Your task to perform on an android device: delete browsing data in the chrome app Image 0: 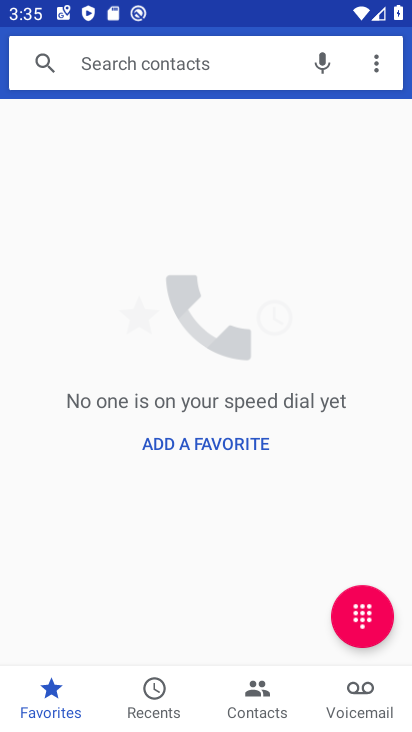
Step 0: press home button
Your task to perform on an android device: delete browsing data in the chrome app Image 1: 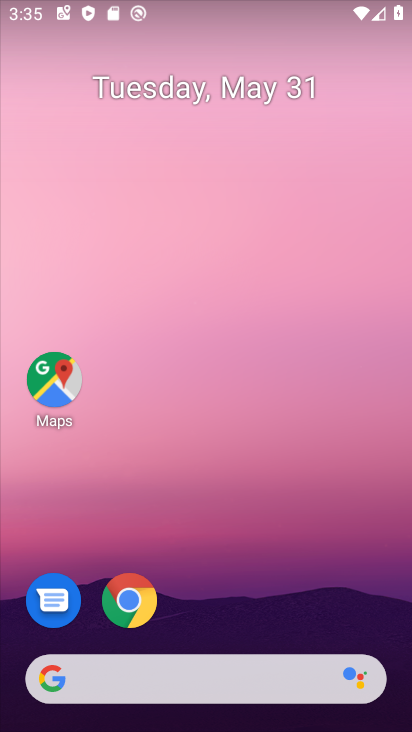
Step 1: click (130, 601)
Your task to perform on an android device: delete browsing data in the chrome app Image 2: 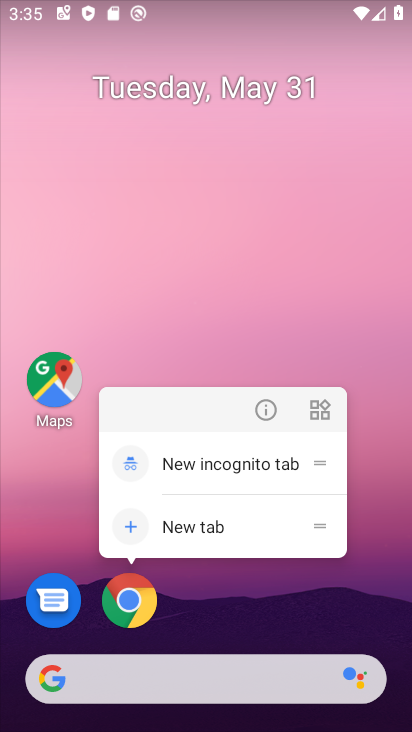
Step 2: click (121, 607)
Your task to perform on an android device: delete browsing data in the chrome app Image 3: 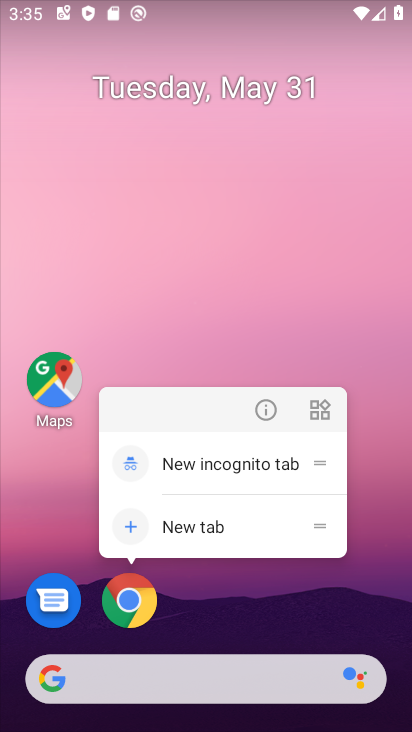
Step 3: click (125, 597)
Your task to perform on an android device: delete browsing data in the chrome app Image 4: 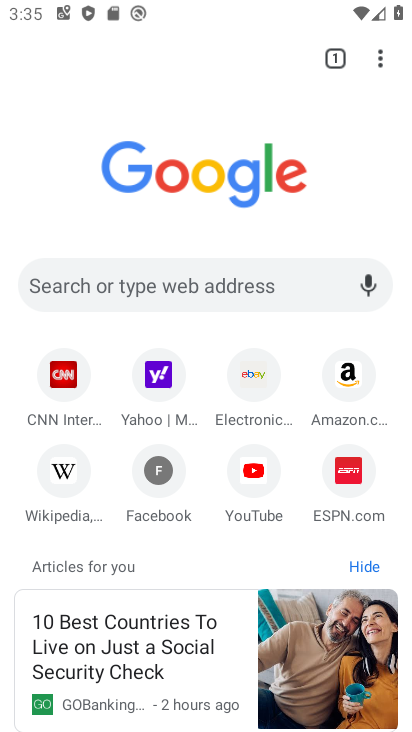
Step 4: click (385, 51)
Your task to perform on an android device: delete browsing data in the chrome app Image 5: 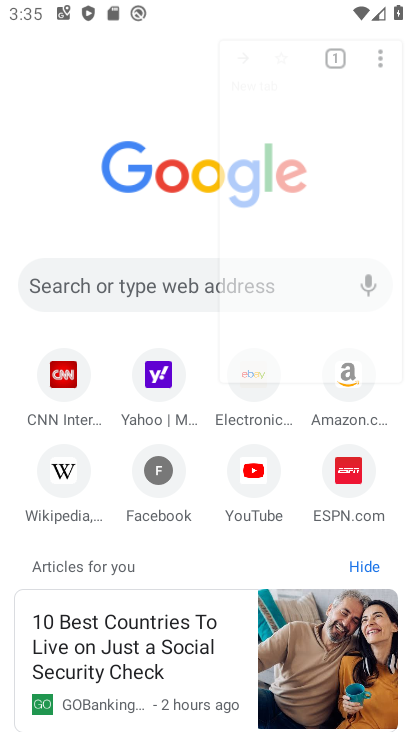
Step 5: click (385, 51)
Your task to perform on an android device: delete browsing data in the chrome app Image 6: 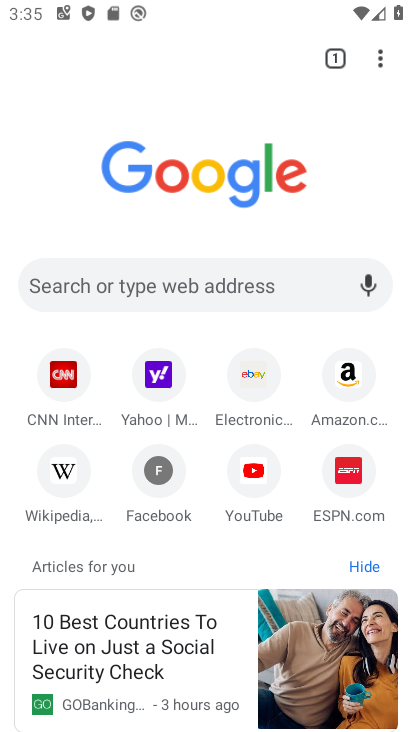
Step 6: click (375, 51)
Your task to perform on an android device: delete browsing data in the chrome app Image 7: 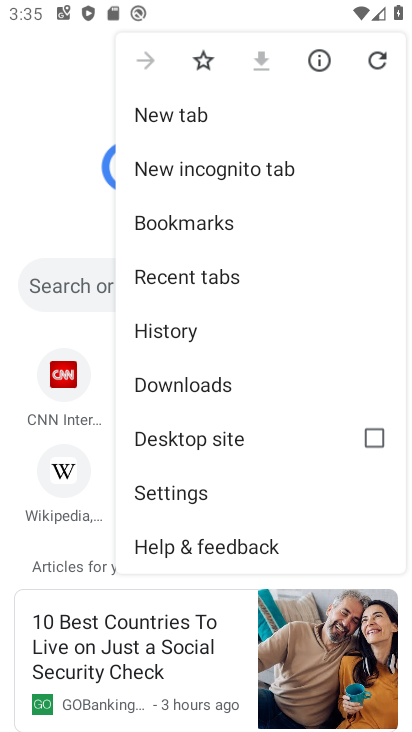
Step 7: click (210, 330)
Your task to perform on an android device: delete browsing data in the chrome app Image 8: 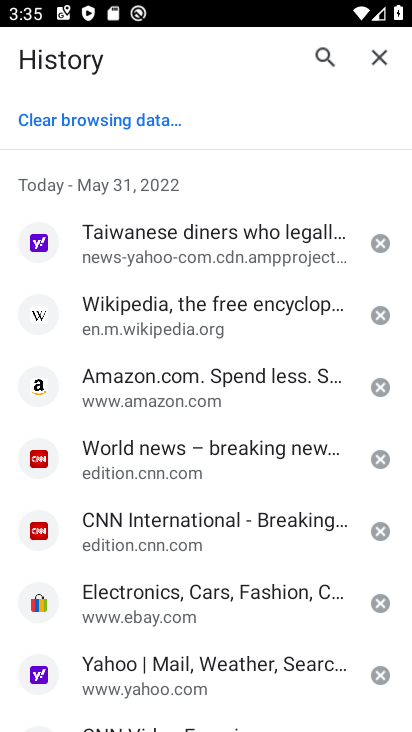
Step 8: click (105, 125)
Your task to perform on an android device: delete browsing data in the chrome app Image 9: 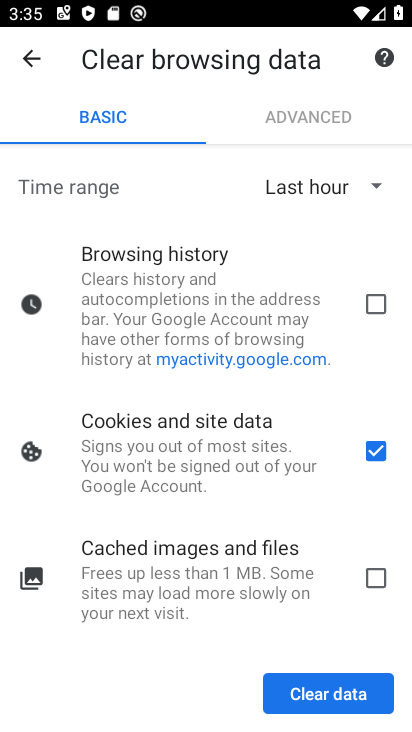
Step 9: click (368, 182)
Your task to perform on an android device: delete browsing data in the chrome app Image 10: 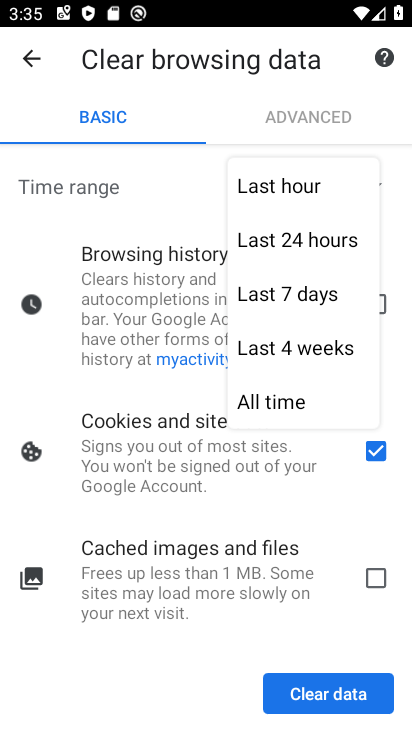
Step 10: click (316, 407)
Your task to perform on an android device: delete browsing data in the chrome app Image 11: 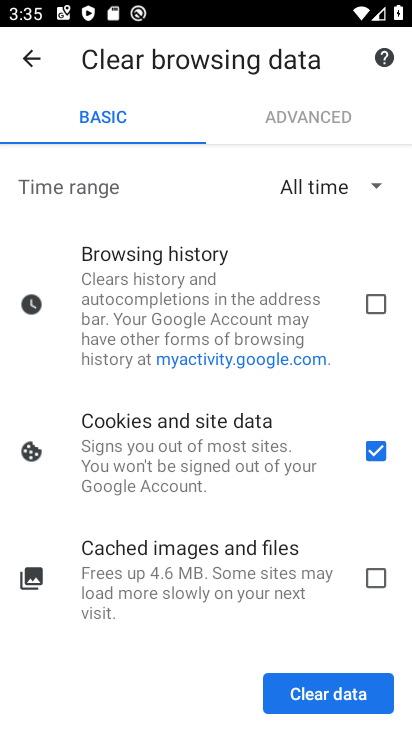
Step 11: click (381, 309)
Your task to perform on an android device: delete browsing data in the chrome app Image 12: 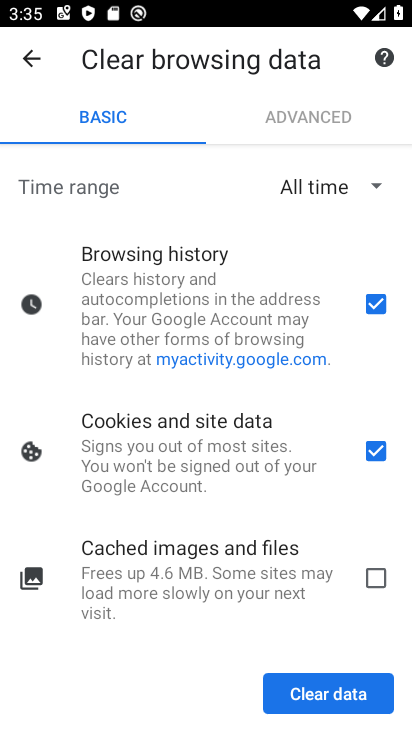
Step 12: click (382, 579)
Your task to perform on an android device: delete browsing data in the chrome app Image 13: 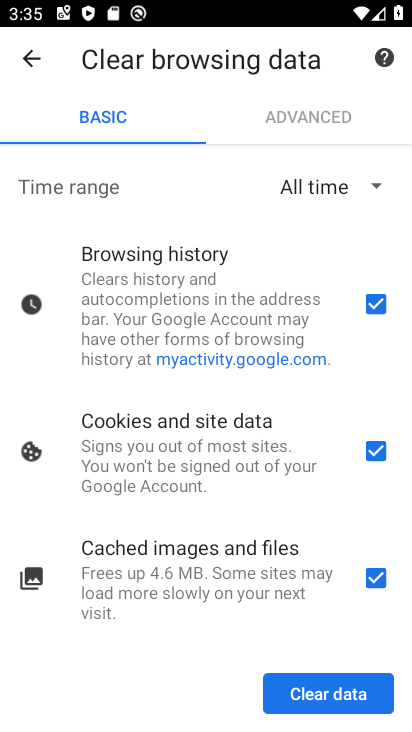
Step 13: click (328, 698)
Your task to perform on an android device: delete browsing data in the chrome app Image 14: 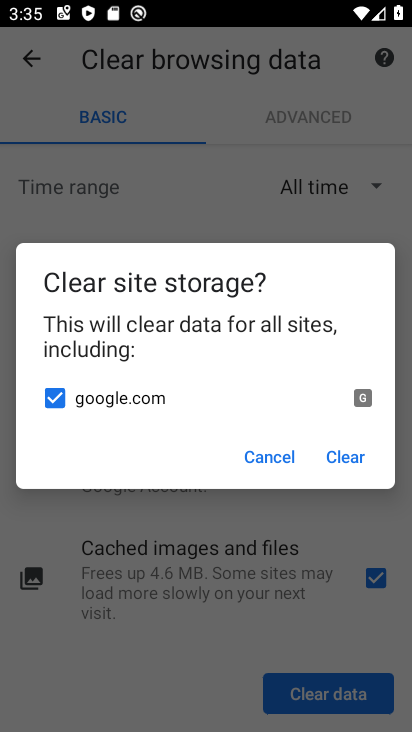
Step 14: click (346, 464)
Your task to perform on an android device: delete browsing data in the chrome app Image 15: 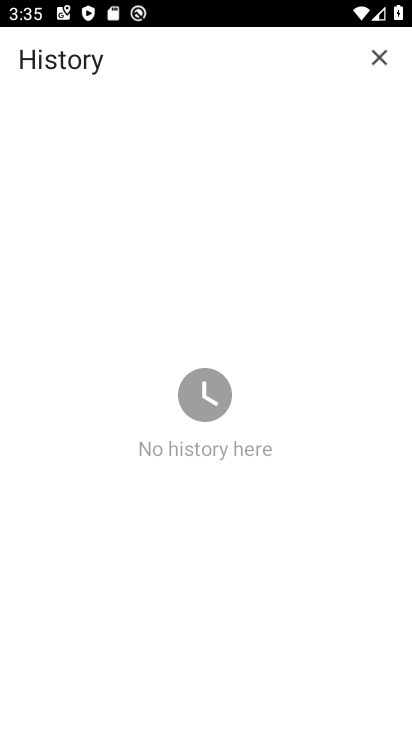
Step 15: task complete